Your task to perform on an android device: show emergency info Image 0: 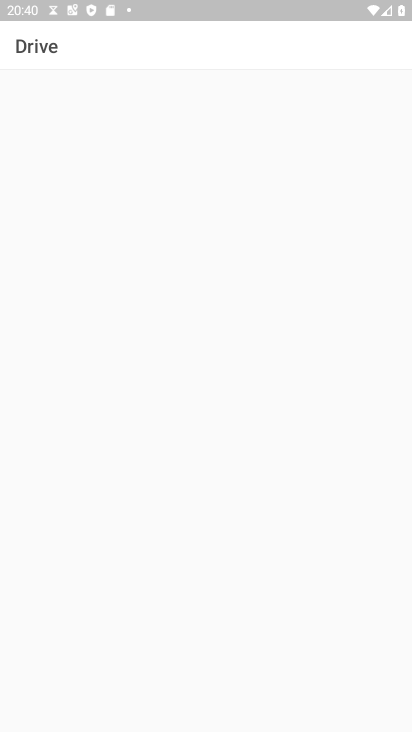
Step 0: press home button
Your task to perform on an android device: show emergency info Image 1: 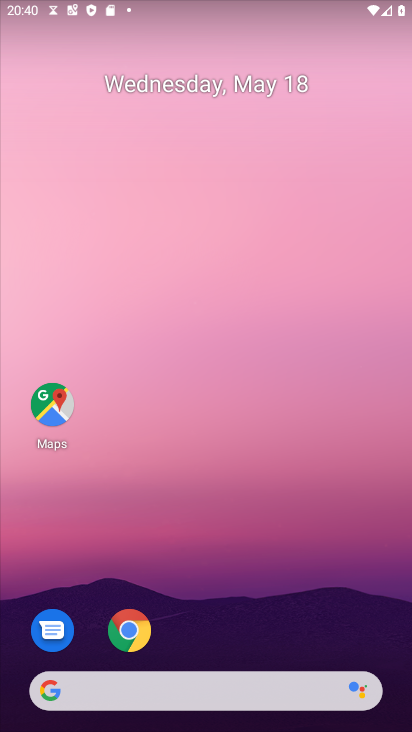
Step 1: drag from (158, 691) to (236, 50)
Your task to perform on an android device: show emergency info Image 2: 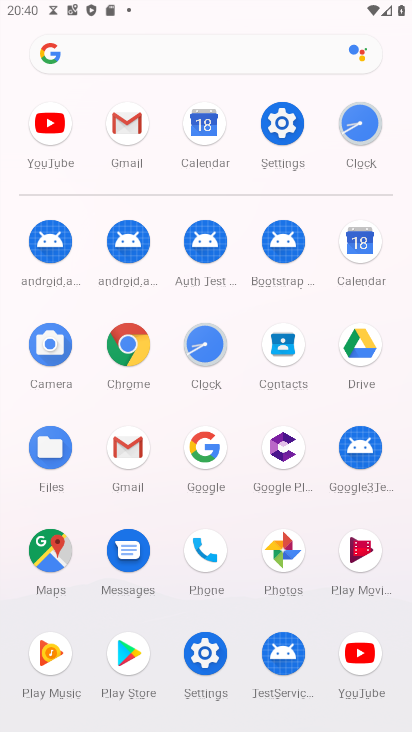
Step 2: click (280, 132)
Your task to perform on an android device: show emergency info Image 3: 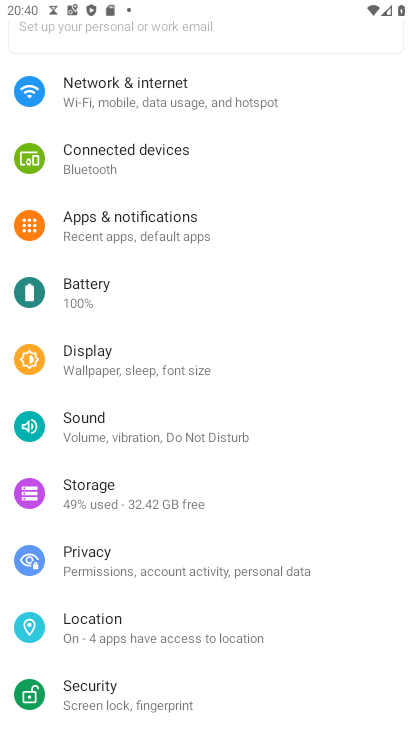
Step 3: drag from (171, 663) to (350, 36)
Your task to perform on an android device: show emergency info Image 4: 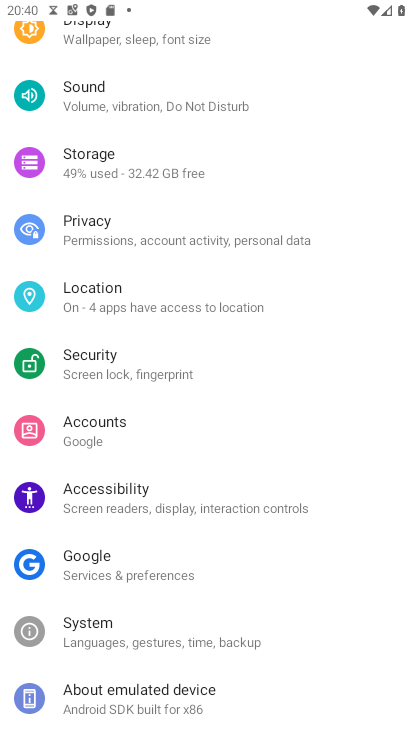
Step 4: click (158, 682)
Your task to perform on an android device: show emergency info Image 5: 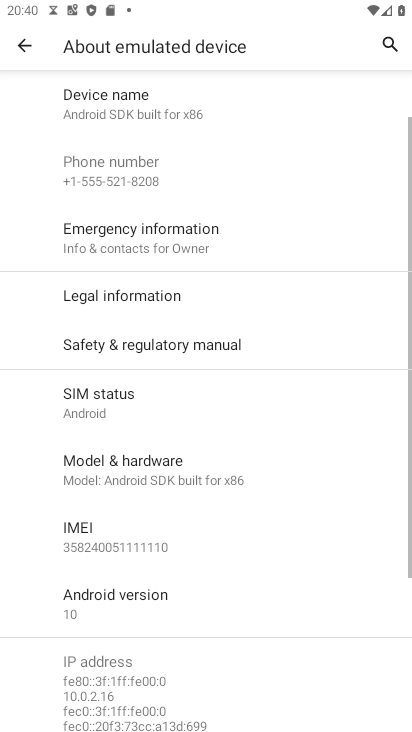
Step 5: click (172, 224)
Your task to perform on an android device: show emergency info Image 6: 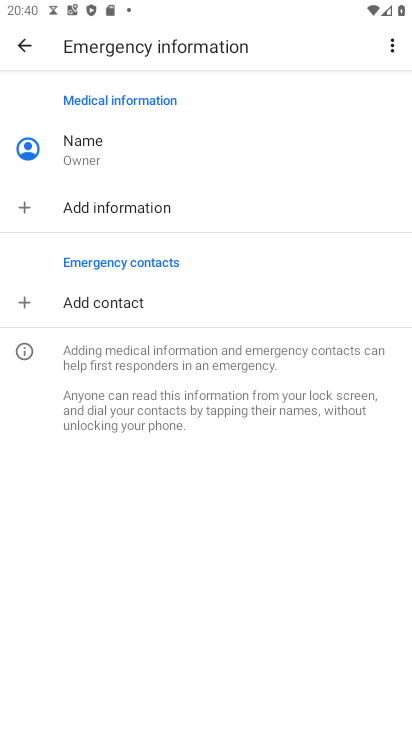
Step 6: task complete